Your task to perform on an android device: open the mobile data screen to see how much data has been used Image 0: 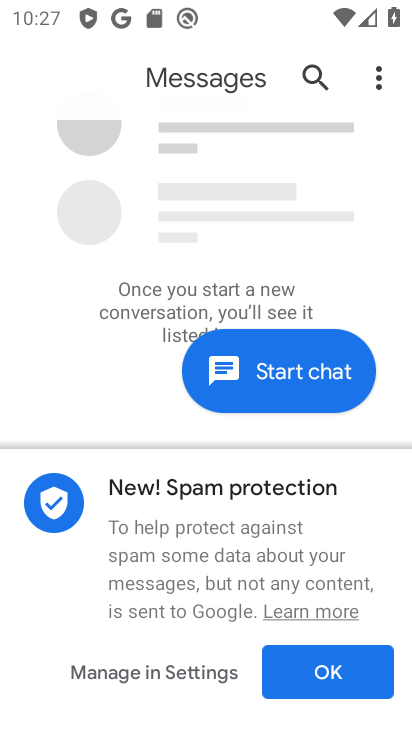
Step 0: press back button
Your task to perform on an android device: open the mobile data screen to see how much data has been used Image 1: 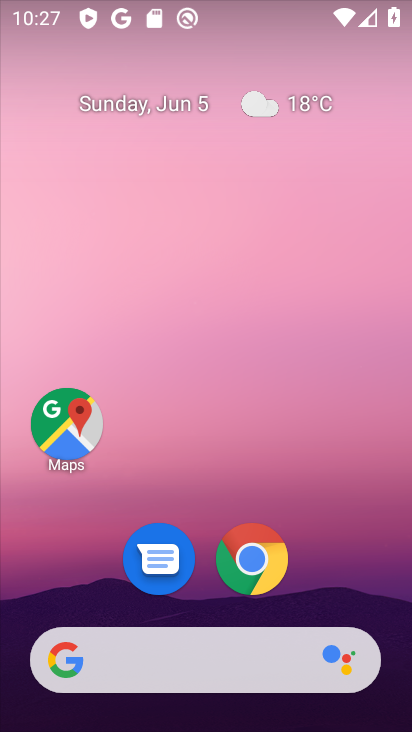
Step 1: drag from (279, 717) to (179, 4)
Your task to perform on an android device: open the mobile data screen to see how much data has been used Image 2: 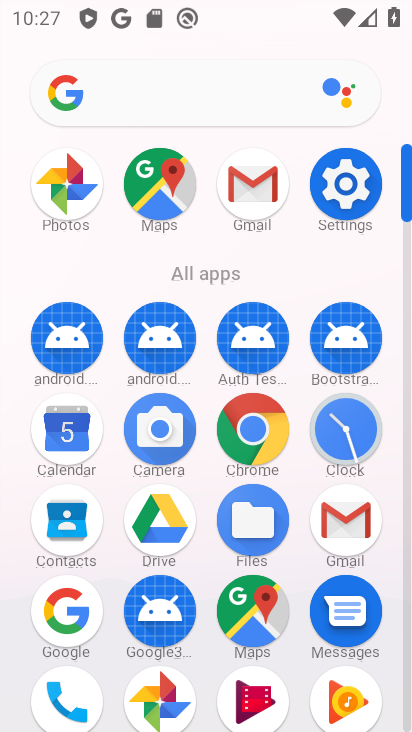
Step 2: click (335, 193)
Your task to perform on an android device: open the mobile data screen to see how much data has been used Image 3: 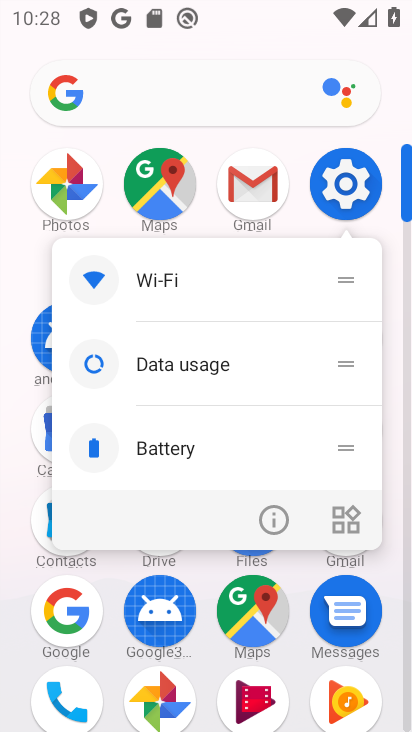
Step 3: click (337, 191)
Your task to perform on an android device: open the mobile data screen to see how much data has been used Image 4: 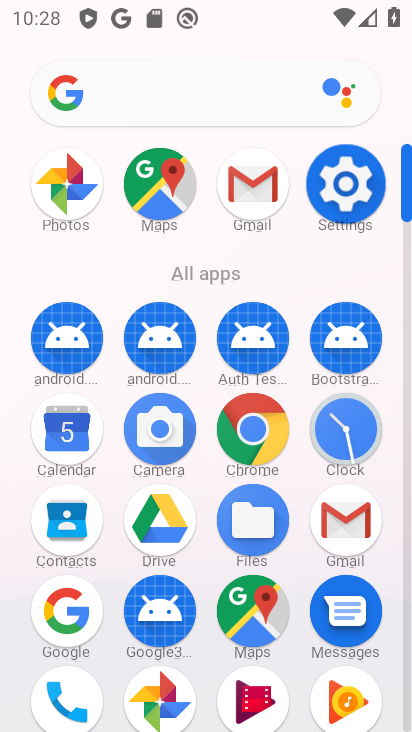
Step 4: click (337, 191)
Your task to perform on an android device: open the mobile data screen to see how much data has been used Image 5: 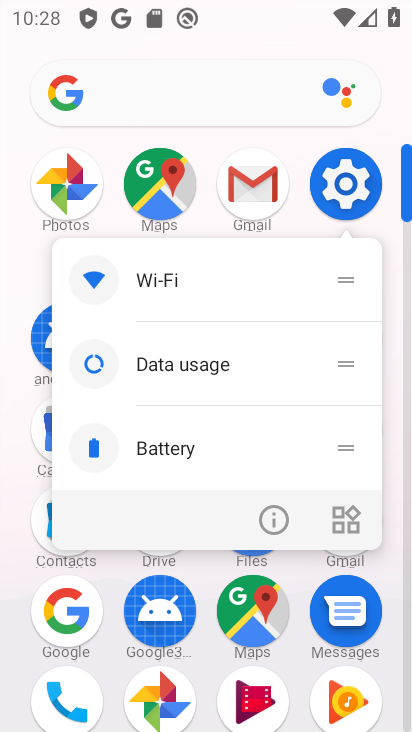
Step 5: click (337, 190)
Your task to perform on an android device: open the mobile data screen to see how much data has been used Image 6: 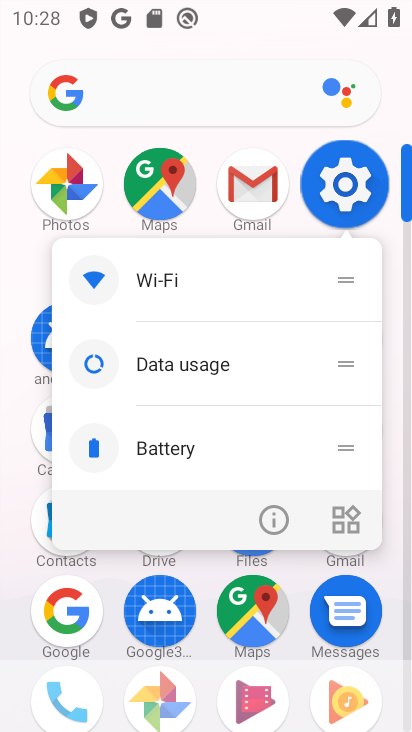
Step 6: click (337, 190)
Your task to perform on an android device: open the mobile data screen to see how much data has been used Image 7: 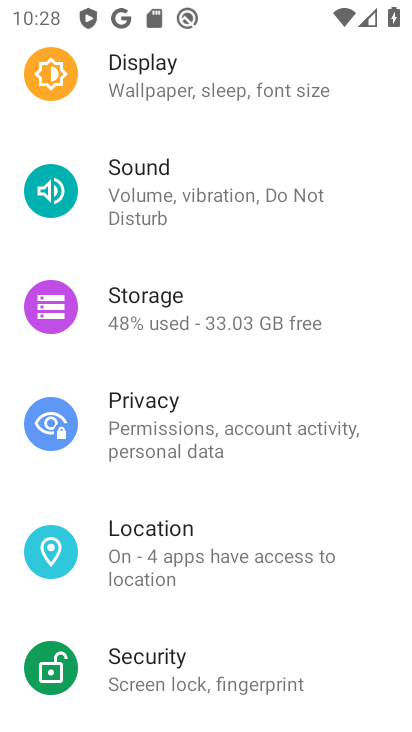
Step 7: click (175, 277)
Your task to perform on an android device: open the mobile data screen to see how much data has been used Image 8: 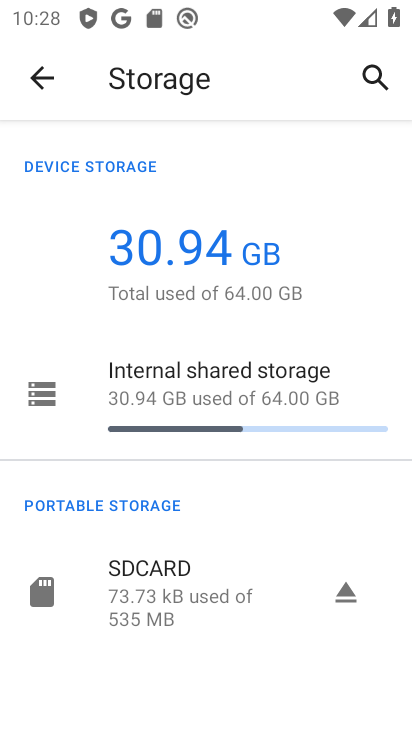
Step 8: click (40, 84)
Your task to perform on an android device: open the mobile data screen to see how much data has been used Image 9: 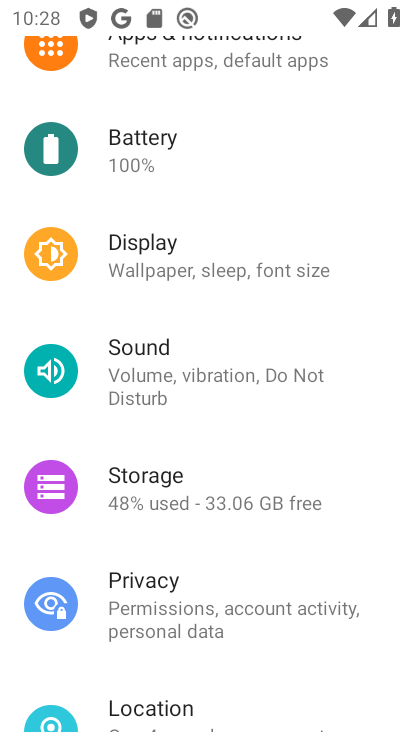
Step 9: drag from (304, 143) to (287, 510)
Your task to perform on an android device: open the mobile data screen to see how much data has been used Image 10: 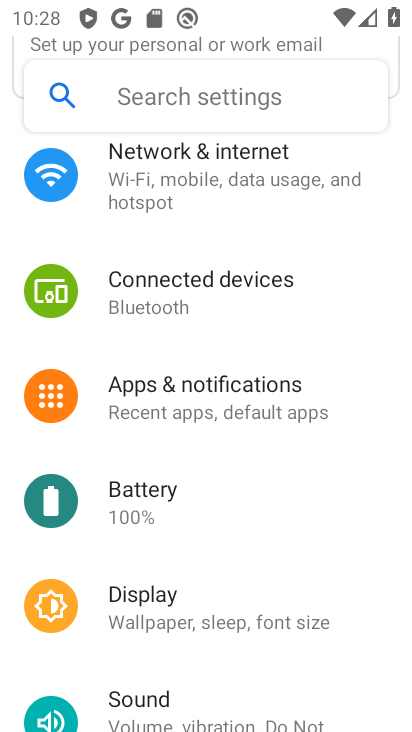
Step 10: click (202, 169)
Your task to perform on an android device: open the mobile data screen to see how much data has been used Image 11: 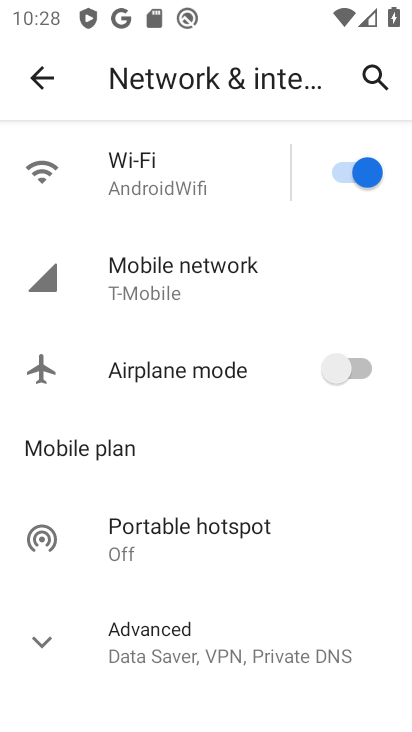
Step 11: click (153, 277)
Your task to perform on an android device: open the mobile data screen to see how much data has been used Image 12: 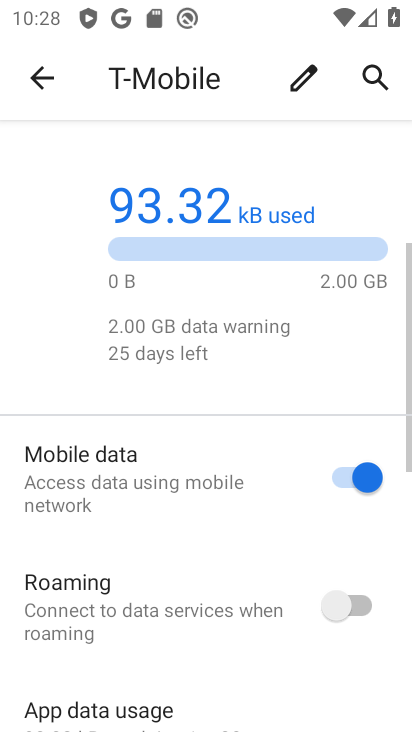
Step 12: task complete